Your task to perform on an android device: turn off smart reply in the gmail app Image 0: 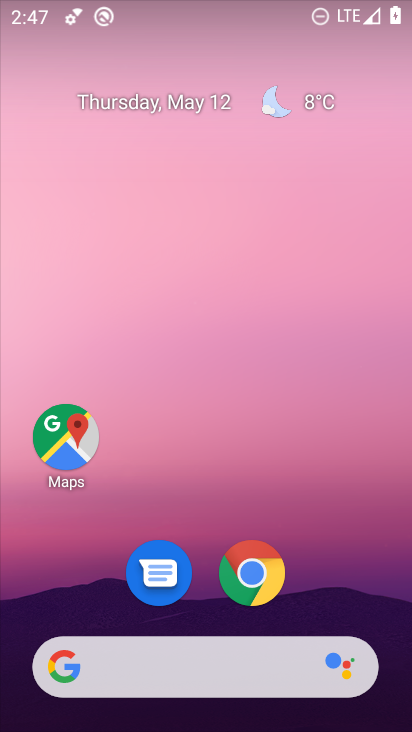
Step 0: drag from (393, 648) to (183, 105)
Your task to perform on an android device: turn off smart reply in the gmail app Image 1: 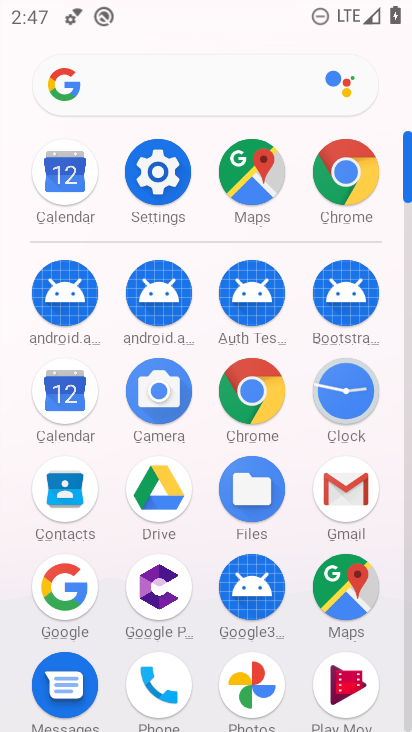
Step 1: click (348, 504)
Your task to perform on an android device: turn off smart reply in the gmail app Image 2: 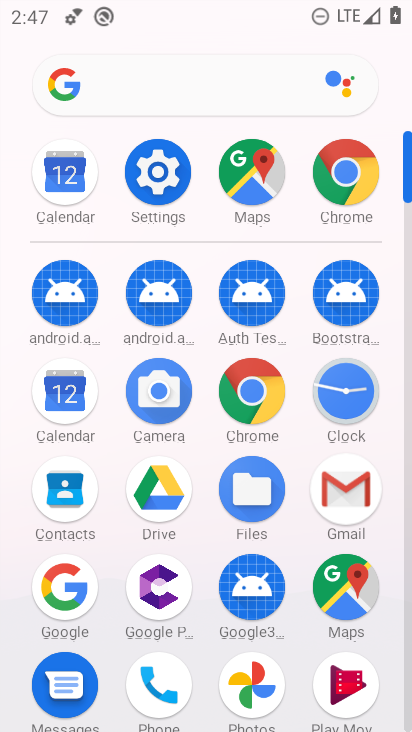
Step 2: click (347, 503)
Your task to perform on an android device: turn off smart reply in the gmail app Image 3: 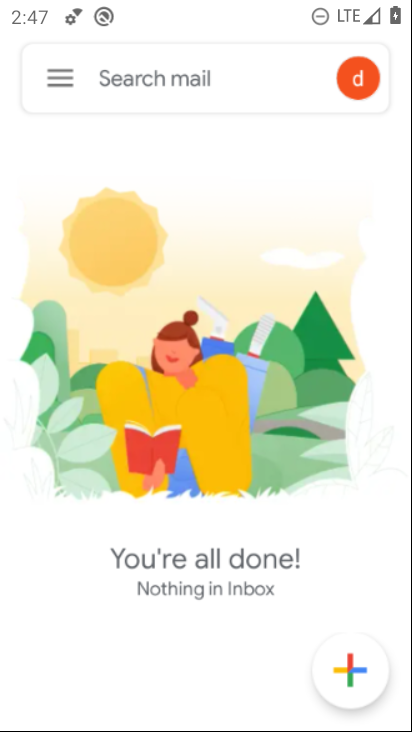
Step 3: click (347, 503)
Your task to perform on an android device: turn off smart reply in the gmail app Image 4: 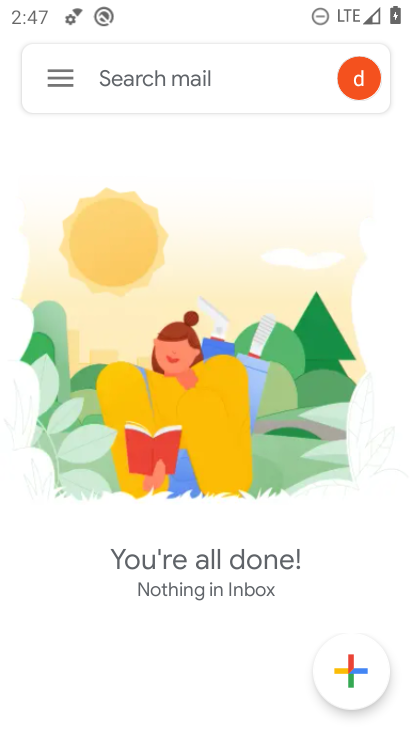
Step 4: click (56, 95)
Your task to perform on an android device: turn off smart reply in the gmail app Image 5: 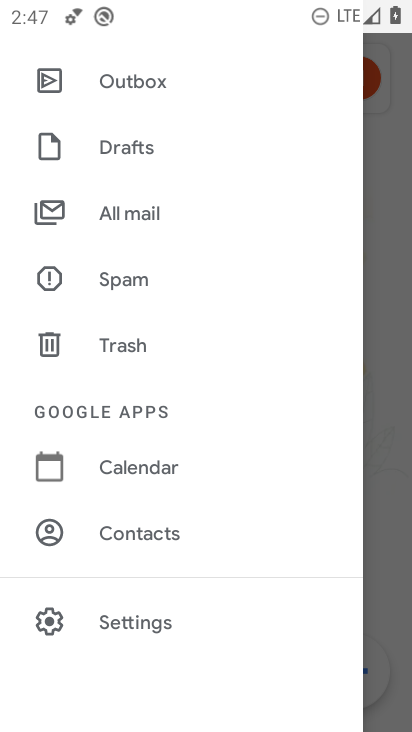
Step 5: click (110, 285)
Your task to perform on an android device: turn off smart reply in the gmail app Image 6: 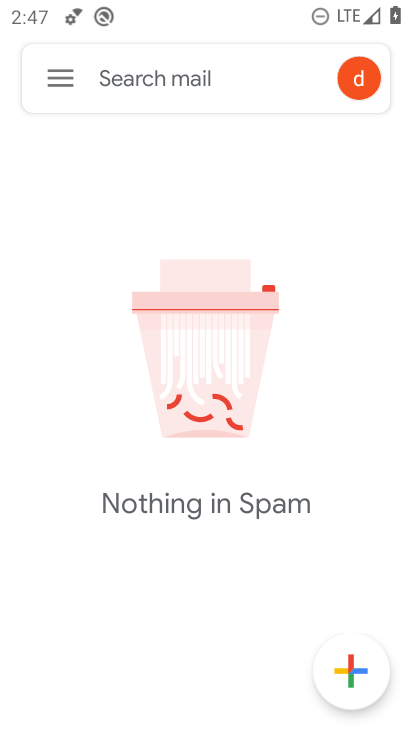
Step 6: click (54, 81)
Your task to perform on an android device: turn off smart reply in the gmail app Image 7: 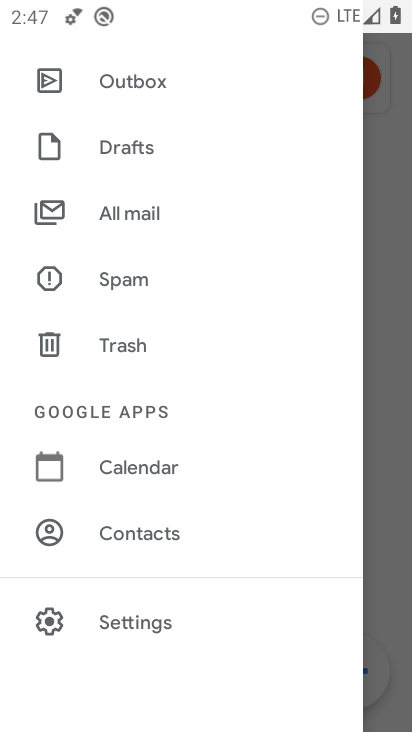
Step 7: drag from (160, 552) to (120, 143)
Your task to perform on an android device: turn off smart reply in the gmail app Image 8: 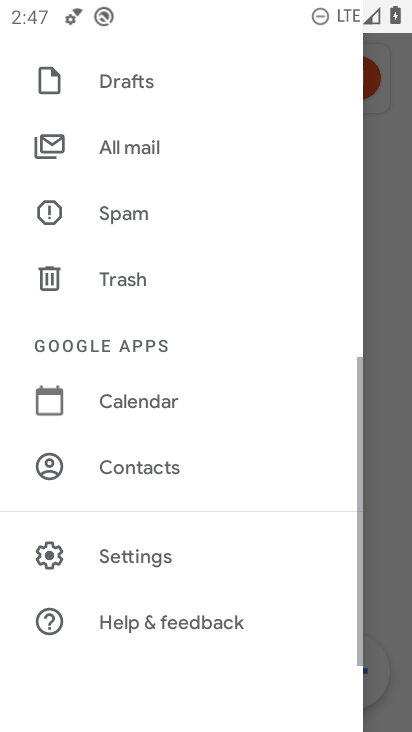
Step 8: click (125, 556)
Your task to perform on an android device: turn off smart reply in the gmail app Image 9: 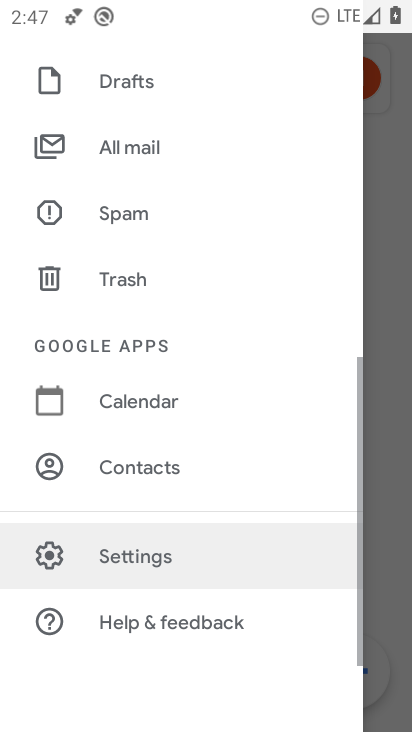
Step 9: click (125, 555)
Your task to perform on an android device: turn off smart reply in the gmail app Image 10: 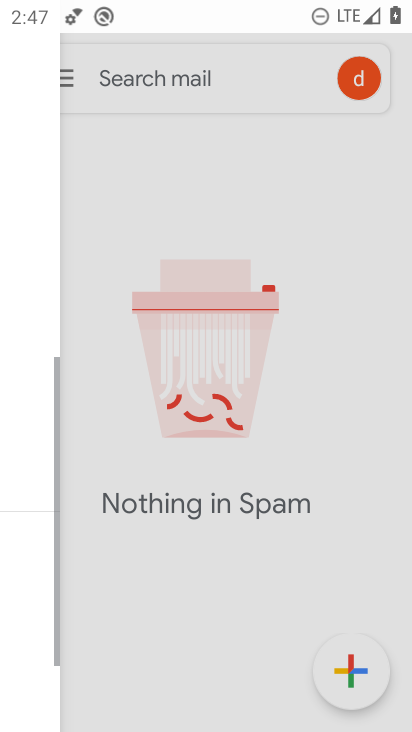
Step 10: click (125, 555)
Your task to perform on an android device: turn off smart reply in the gmail app Image 11: 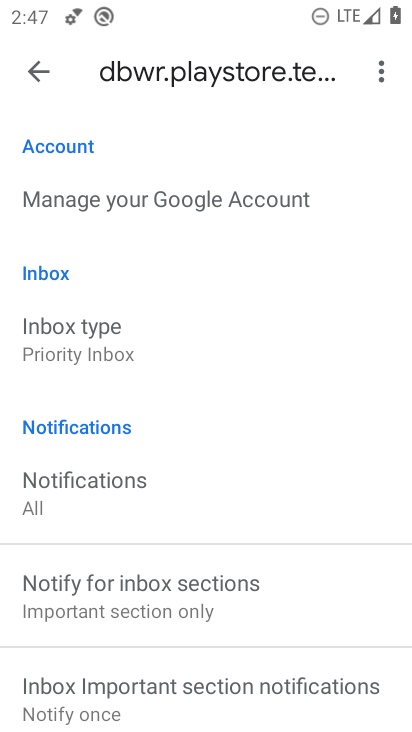
Step 11: drag from (44, 235) to (8, 133)
Your task to perform on an android device: turn off smart reply in the gmail app Image 12: 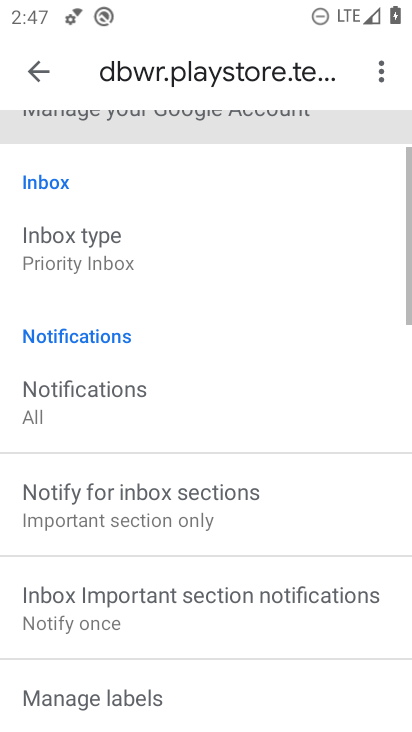
Step 12: drag from (137, 426) to (147, 120)
Your task to perform on an android device: turn off smart reply in the gmail app Image 13: 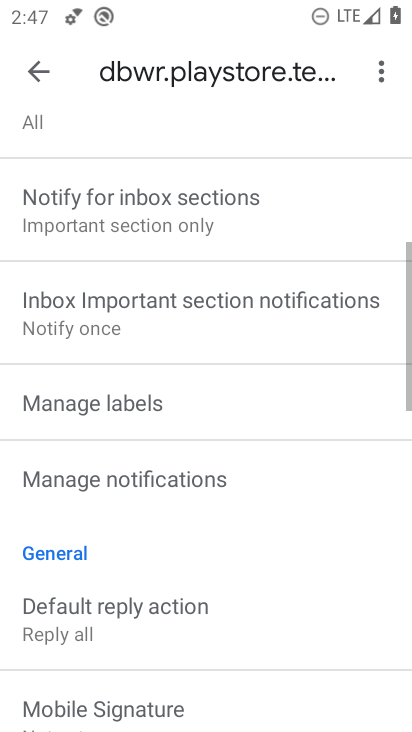
Step 13: drag from (210, 489) to (205, 59)
Your task to perform on an android device: turn off smart reply in the gmail app Image 14: 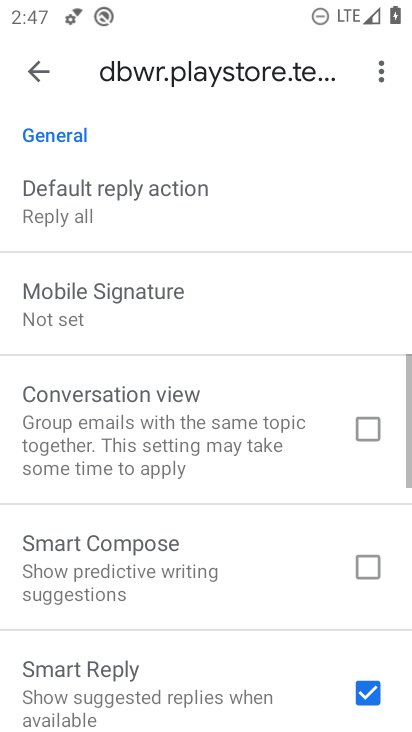
Step 14: drag from (168, 517) to (140, 125)
Your task to perform on an android device: turn off smart reply in the gmail app Image 15: 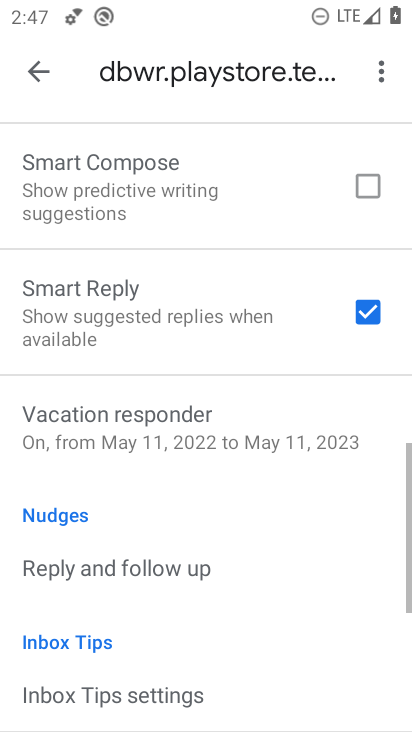
Step 15: drag from (189, 525) to (139, 158)
Your task to perform on an android device: turn off smart reply in the gmail app Image 16: 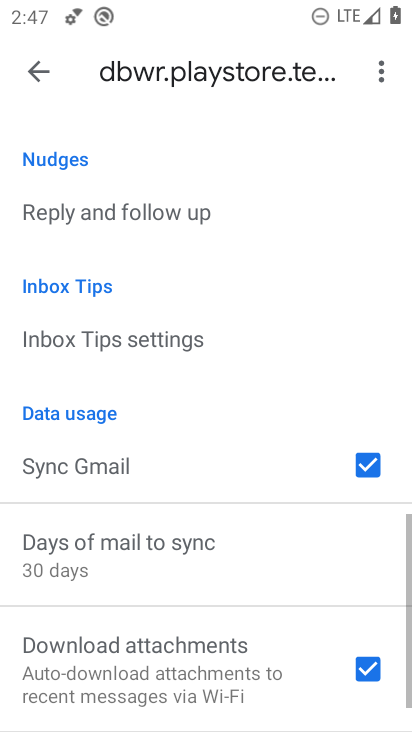
Step 16: drag from (218, 552) to (159, 165)
Your task to perform on an android device: turn off smart reply in the gmail app Image 17: 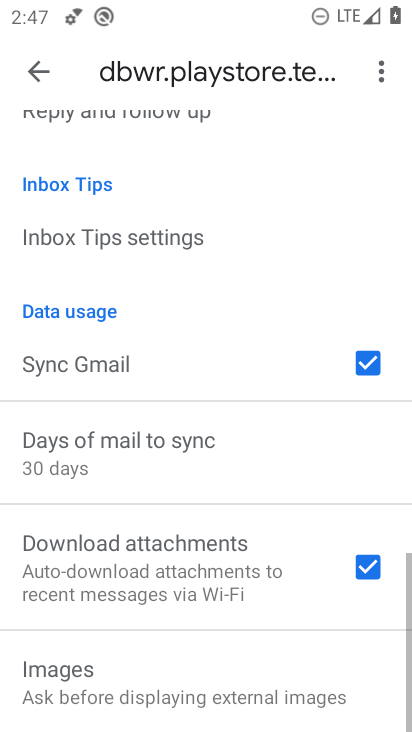
Step 17: drag from (149, 213) to (159, 584)
Your task to perform on an android device: turn off smart reply in the gmail app Image 18: 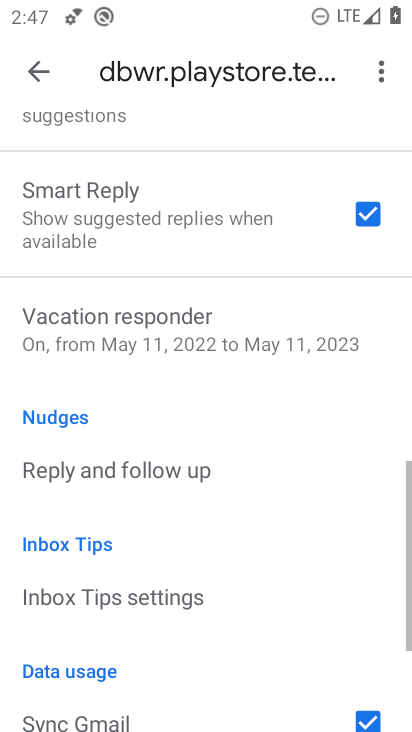
Step 18: drag from (164, 304) to (188, 451)
Your task to perform on an android device: turn off smart reply in the gmail app Image 19: 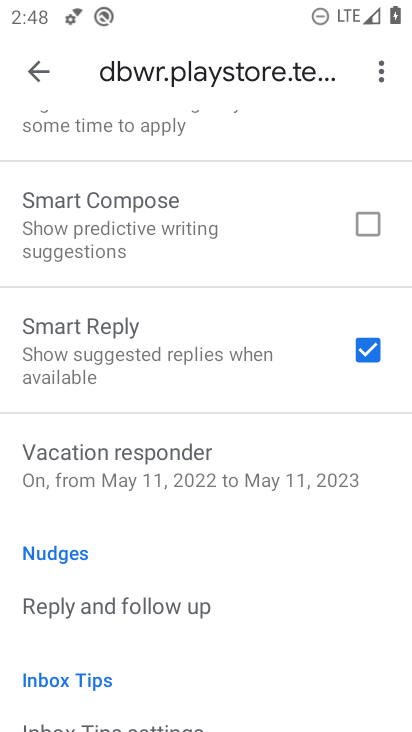
Step 19: click (369, 344)
Your task to perform on an android device: turn off smart reply in the gmail app Image 20: 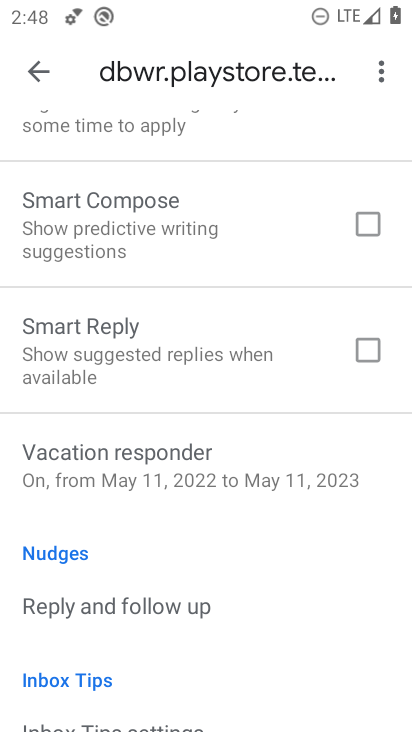
Step 20: task complete